Your task to perform on an android device: see creations saved in the google photos Image 0: 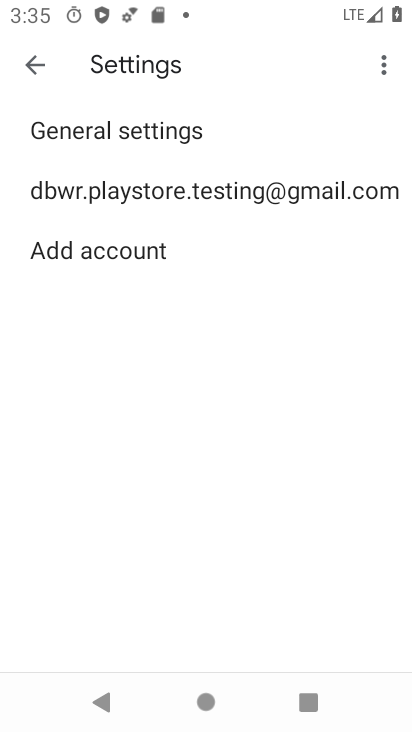
Step 0: press home button
Your task to perform on an android device: see creations saved in the google photos Image 1: 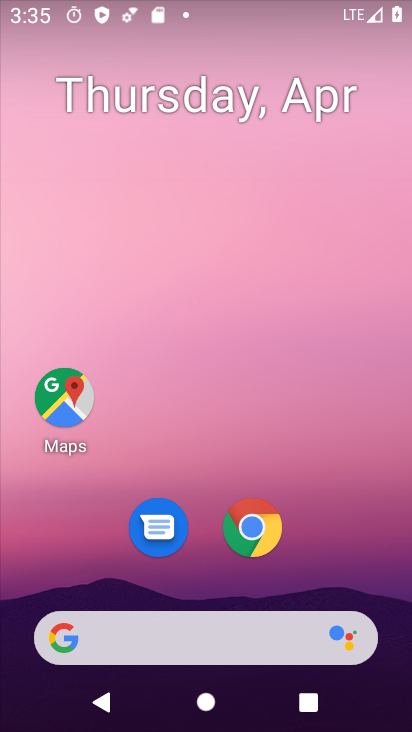
Step 1: click (249, 520)
Your task to perform on an android device: see creations saved in the google photos Image 2: 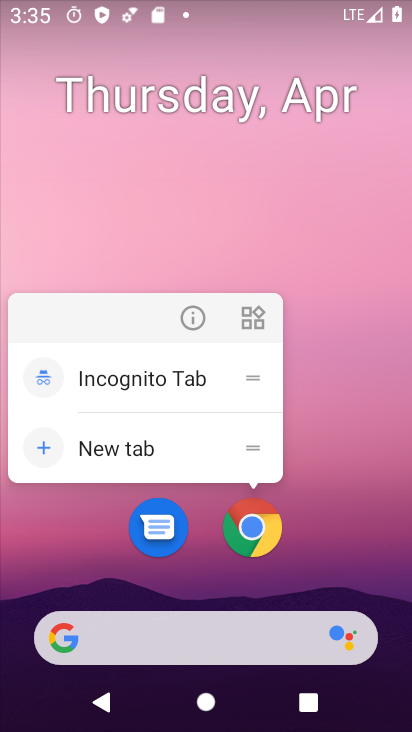
Step 2: click (258, 528)
Your task to perform on an android device: see creations saved in the google photos Image 3: 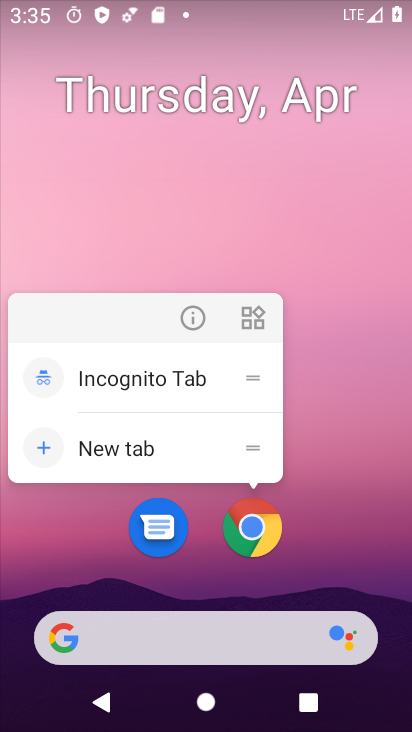
Step 3: click (258, 528)
Your task to perform on an android device: see creations saved in the google photos Image 4: 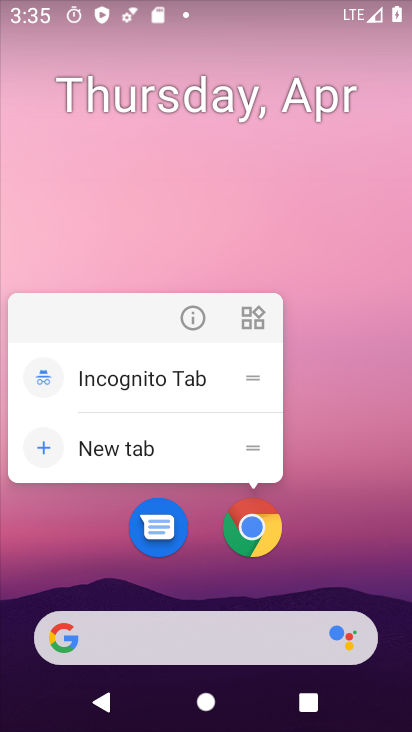
Step 4: drag from (348, 503) to (341, 35)
Your task to perform on an android device: see creations saved in the google photos Image 5: 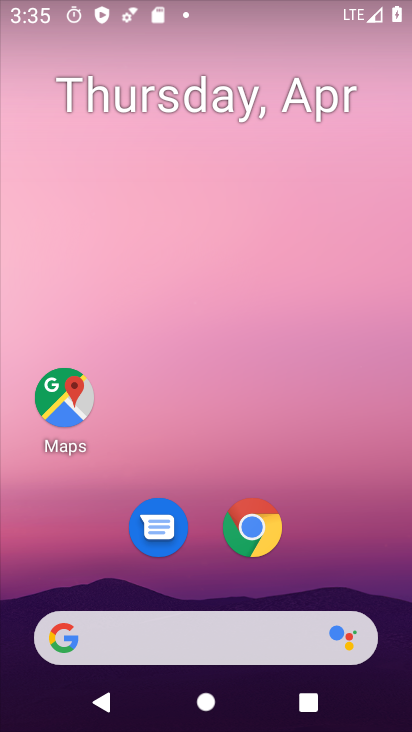
Step 5: drag from (348, 493) to (258, 94)
Your task to perform on an android device: see creations saved in the google photos Image 6: 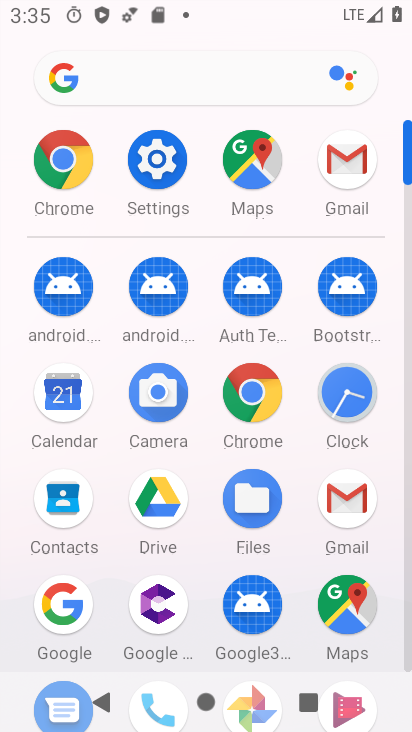
Step 6: drag from (299, 614) to (322, 262)
Your task to perform on an android device: see creations saved in the google photos Image 7: 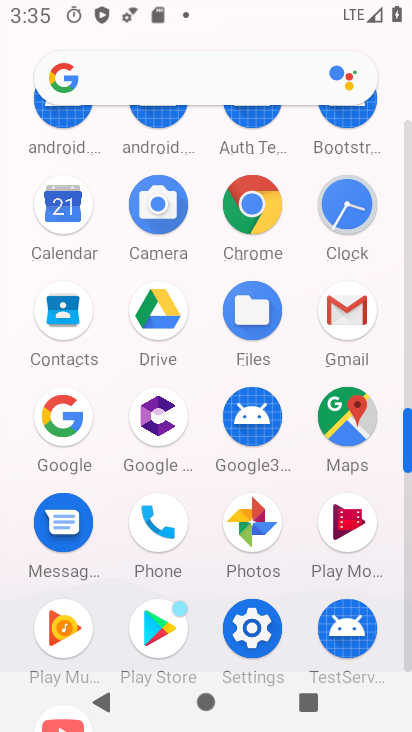
Step 7: click (258, 524)
Your task to perform on an android device: see creations saved in the google photos Image 8: 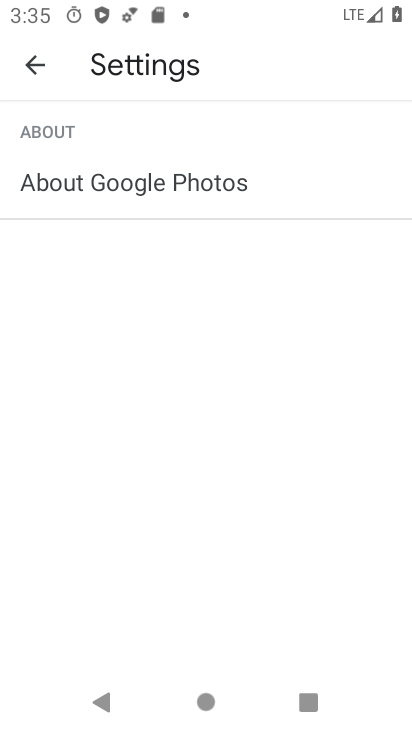
Step 8: click (28, 62)
Your task to perform on an android device: see creations saved in the google photos Image 9: 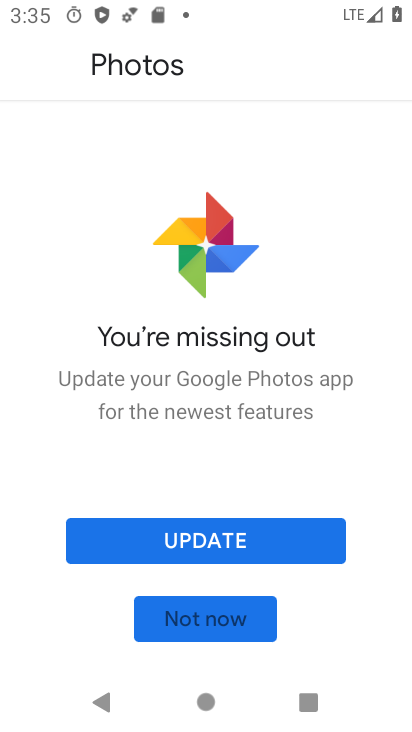
Step 9: task complete